Your task to perform on an android device: What's the weather today? Image 0: 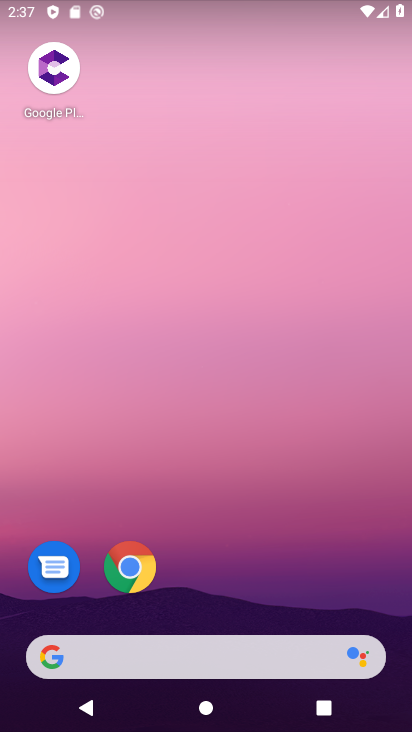
Step 0: drag from (307, 577) to (311, 26)
Your task to perform on an android device: What's the weather today? Image 1: 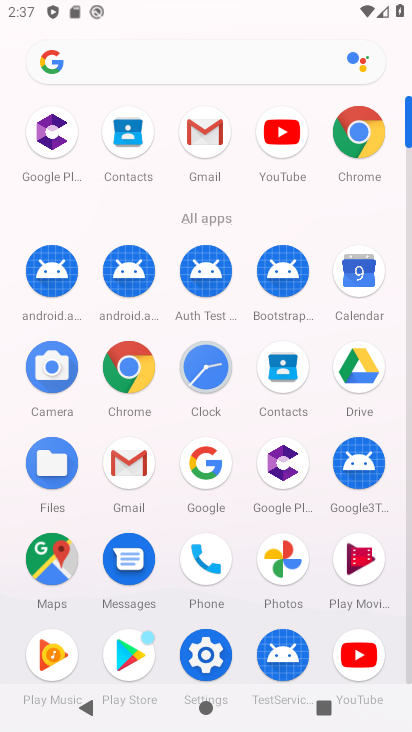
Step 1: drag from (36, 444) to (43, 222)
Your task to perform on an android device: What's the weather today? Image 2: 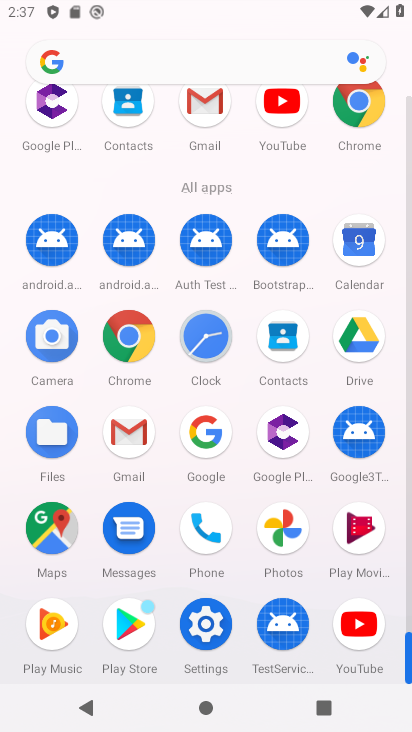
Step 2: drag from (26, 463) to (26, 149)
Your task to perform on an android device: What's the weather today? Image 3: 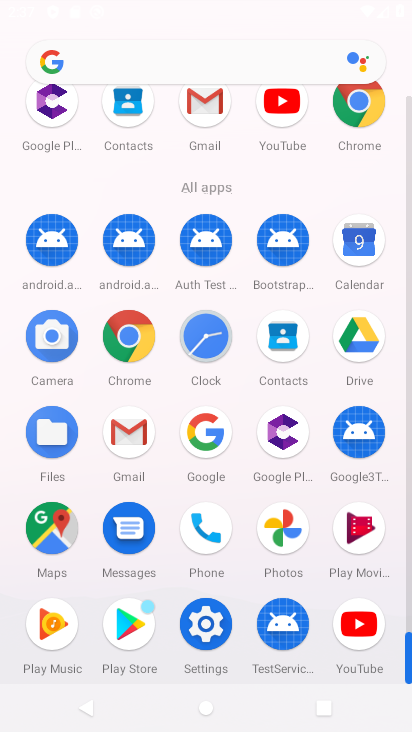
Step 3: click (127, 334)
Your task to perform on an android device: What's the weather today? Image 4: 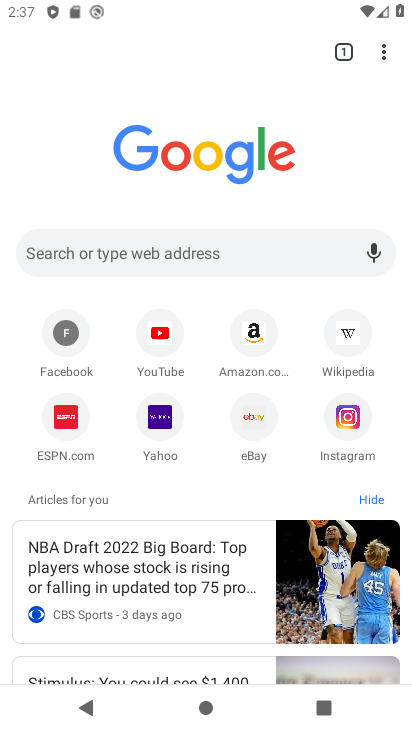
Step 4: click (229, 255)
Your task to perform on an android device: What's the weather today? Image 5: 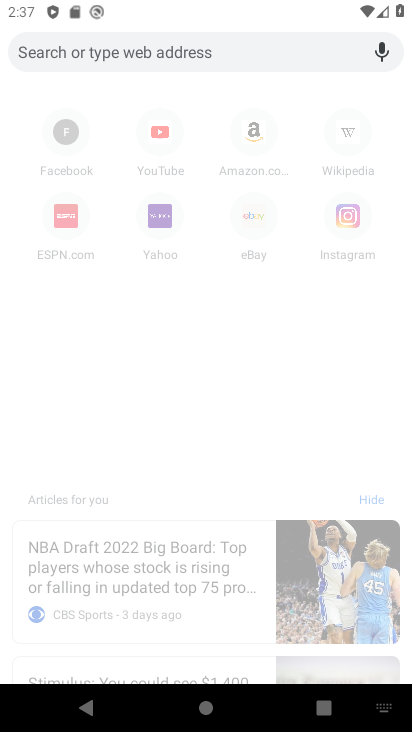
Step 5: type "What's the weather today?"
Your task to perform on an android device: What's the weather today? Image 6: 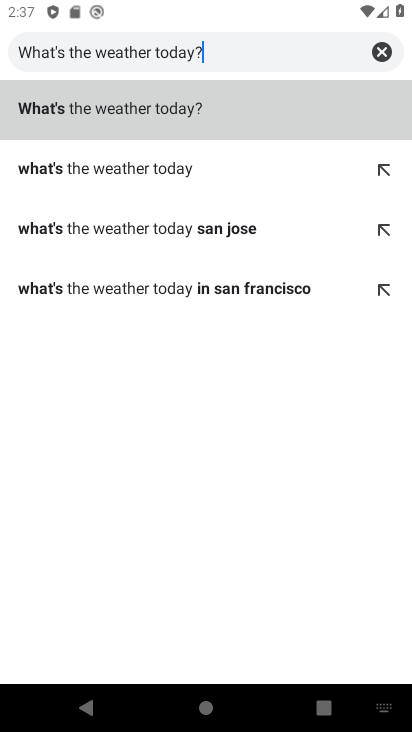
Step 6: type ""
Your task to perform on an android device: What's the weather today? Image 7: 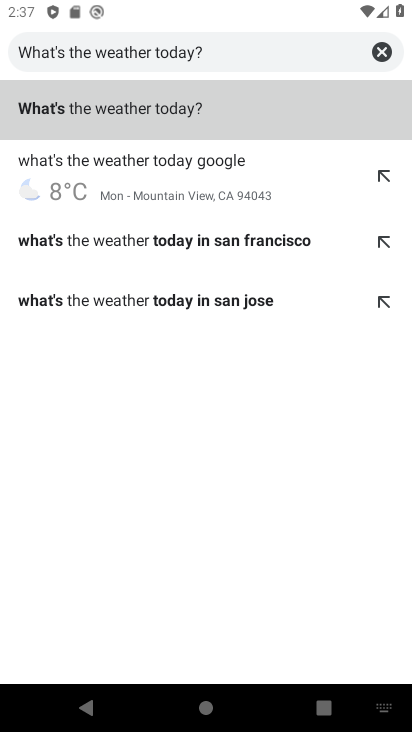
Step 7: click (221, 108)
Your task to perform on an android device: What's the weather today? Image 8: 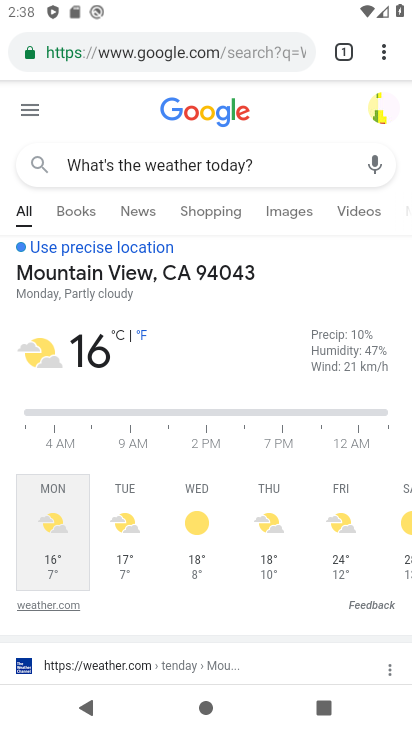
Step 8: task complete